Your task to perform on an android device: empty trash in the gmail app Image 0: 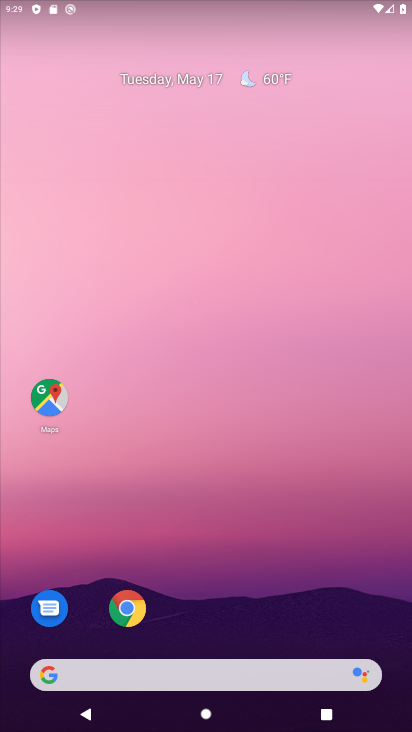
Step 0: drag from (244, 585) to (214, 191)
Your task to perform on an android device: empty trash in the gmail app Image 1: 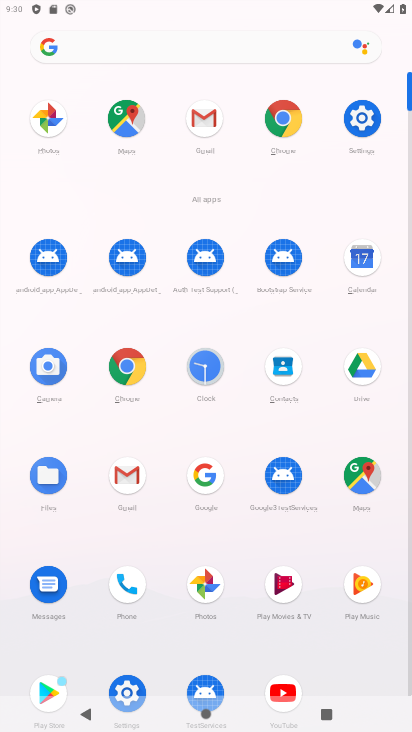
Step 1: click (125, 479)
Your task to perform on an android device: empty trash in the gmail app Image 2: 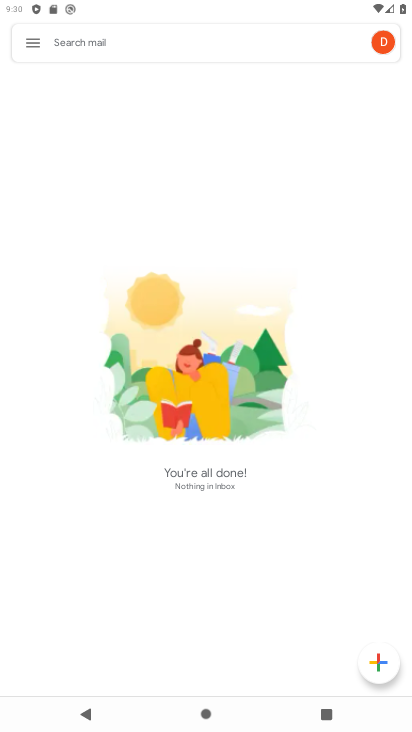
Step 2: click (30, 42)
Your task to perform on an android device: empty trash in the gmail app Image 3: 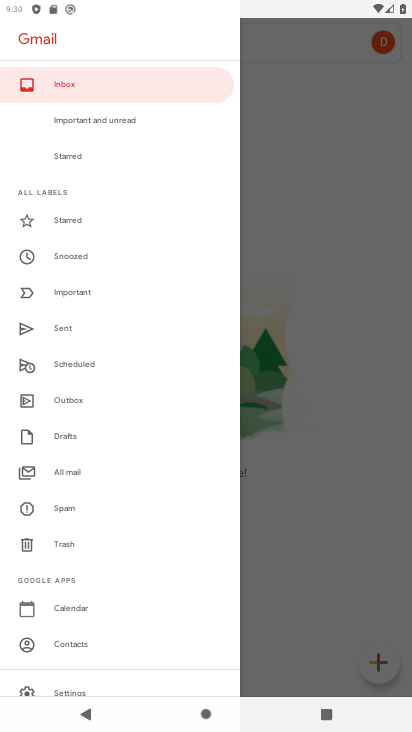
Step 3: click (61, 540)
Your task to perform on an android device: empty trash in the gmail app Image 4: 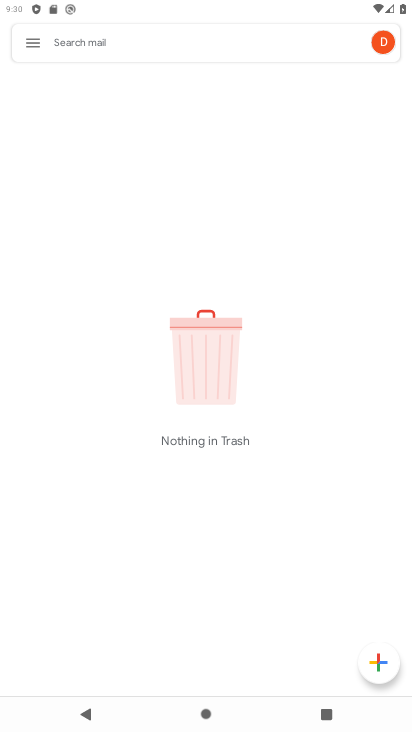
Step 4: task complete